Your task to perform on an android device: toggle notification dots Image 0: 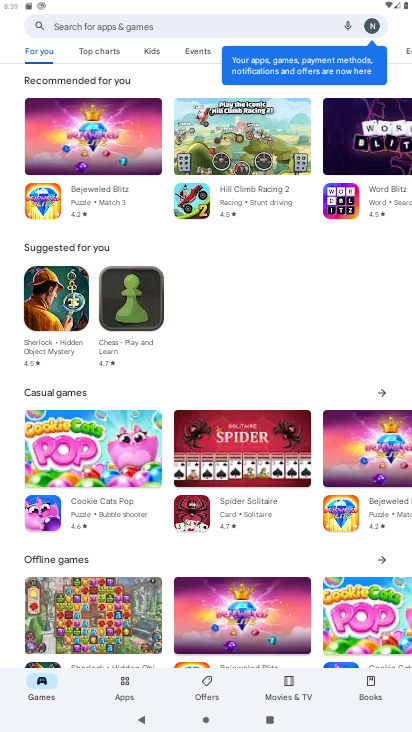
Step 0: press home button
Your task to perform on an android device: toggle notification dots Image 1: 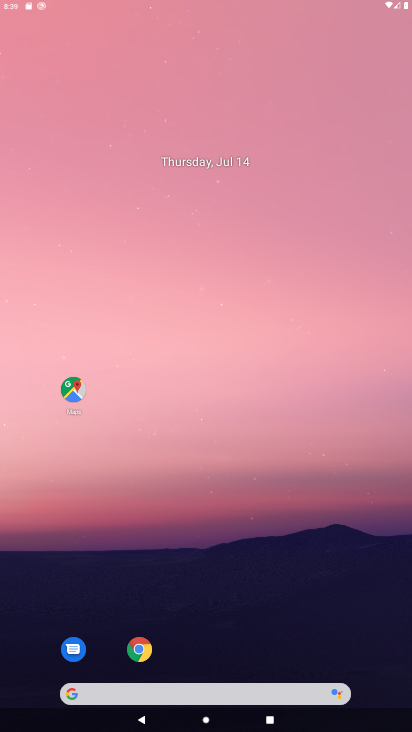
Step 1: drag from (340, 420) to (316, 15)
Your task to perform on an android device: toggle notification dots Image 2: 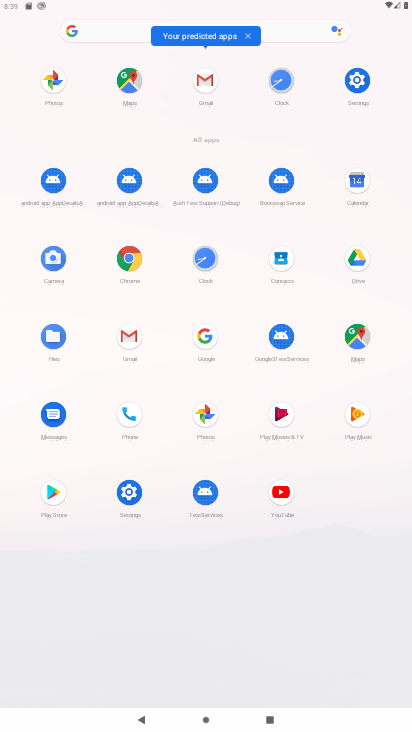
Step 2: click (133, 506)
Your task to perform on an android device: toggle notification dots Image 3: 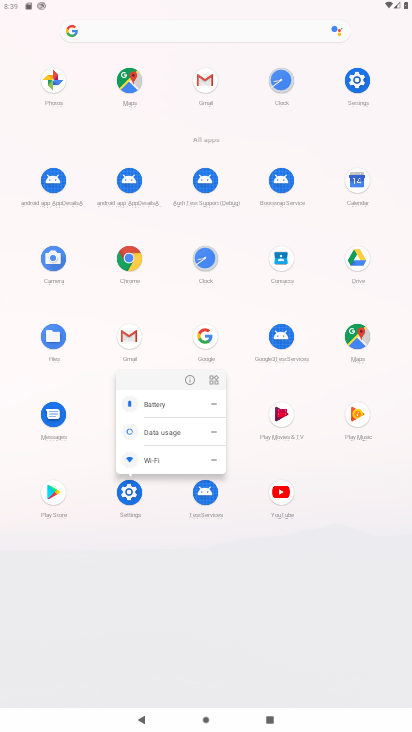
Step 3: click (126, 497)
Your task to perform on an android device: toggle notification dots Image 4: 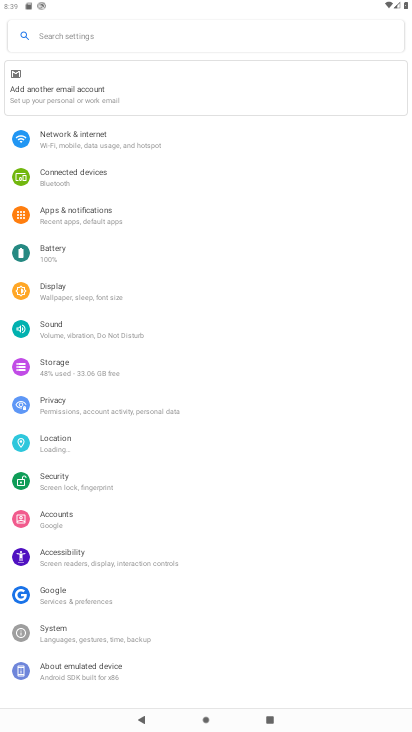
Step 4: click (108, 215)
Your task to perform on an android device: toggle notification dots Image 5: 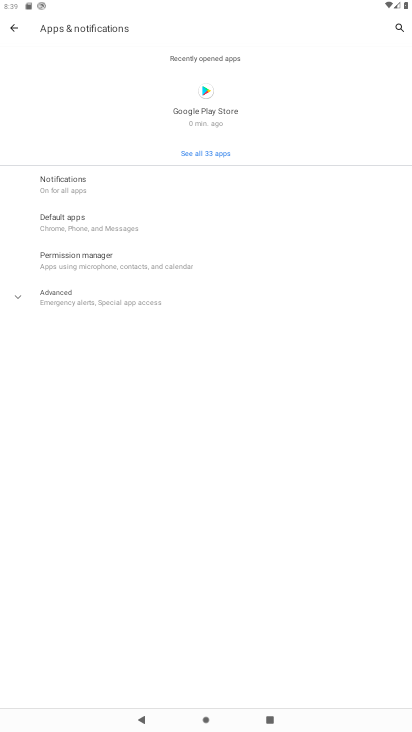
Step 5: click (86, 190)
Your task to perform on an android device: toggle notification dots Image 6: 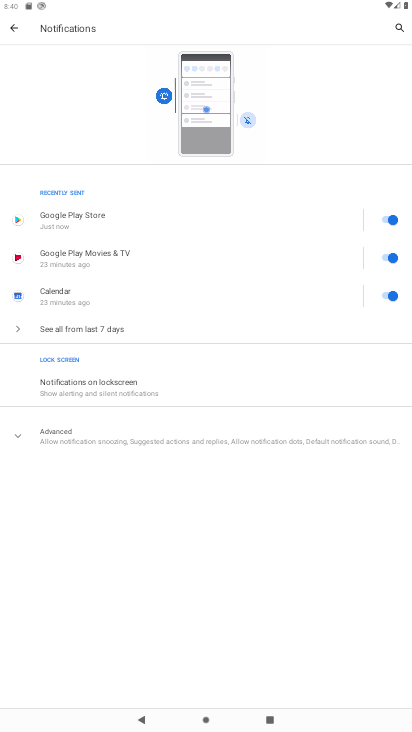
Step 6: click (147, 437)
Your task to perform on an android device: toggle notification dots Image 7: 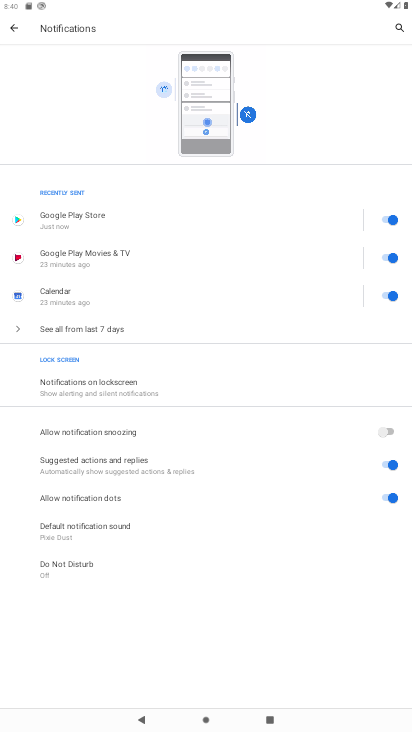
Step 7: click (375, 497)
Your task to perform on an android device: toggle notification dots Image 8: 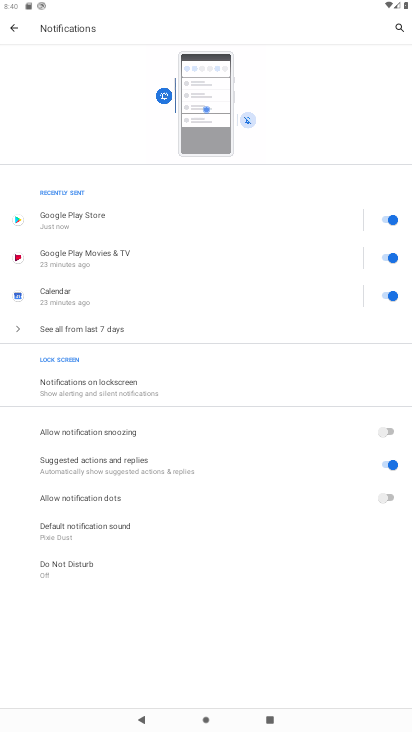
Step 8: task complete